Your task to perform on an android device: Do I have any events this weekend? Image 0: 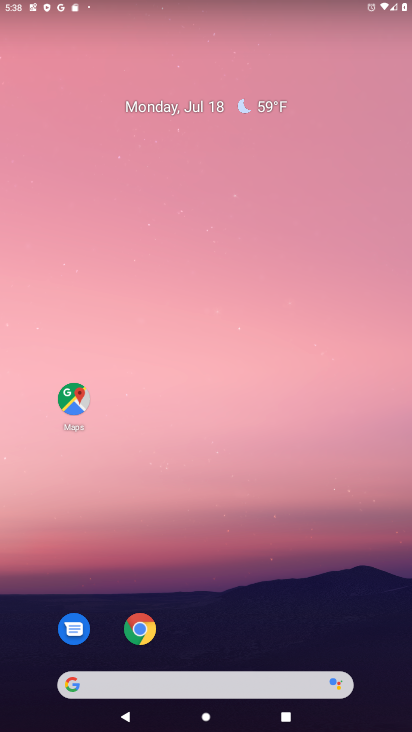
Step 0: drag from (262, 602) to (309, 91)
Your task to perform on an android device: Do I have any events this weekend? Image 1: 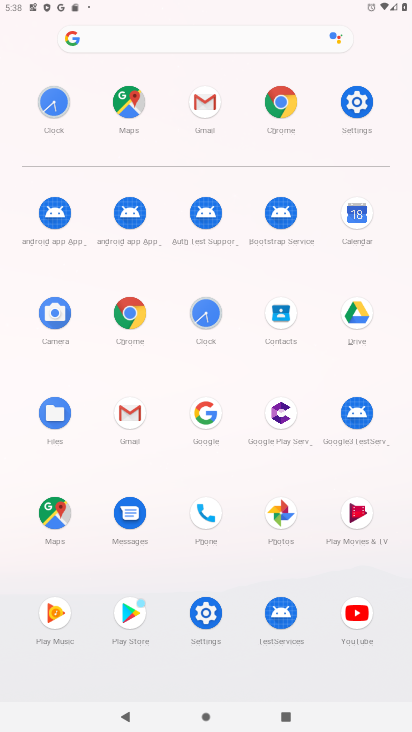
Step 1: click (353, 229)
Your task to perform on an android device: Do I have any events this weekend? Image 2: 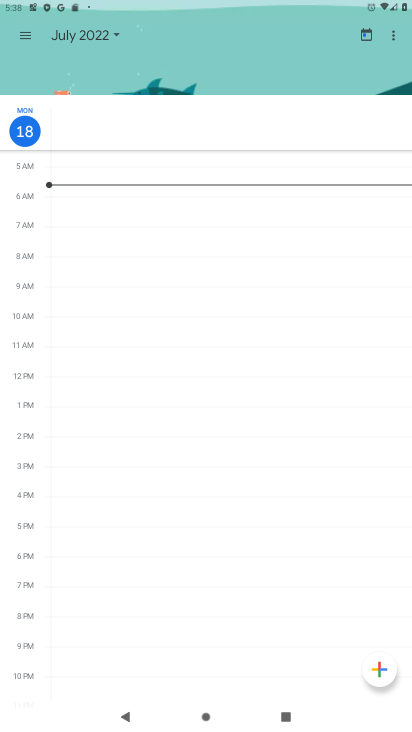
Step 2: click (94, 35)
Your task to perform on an android device: Do I have any events this weekend? Image 3: 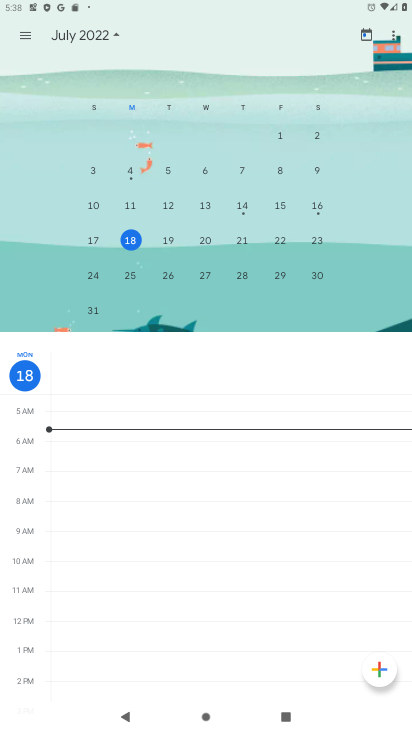
Step 3: click (322, 239)
Your task to perform on an android device: Do I have any events this weekend? Image 4: 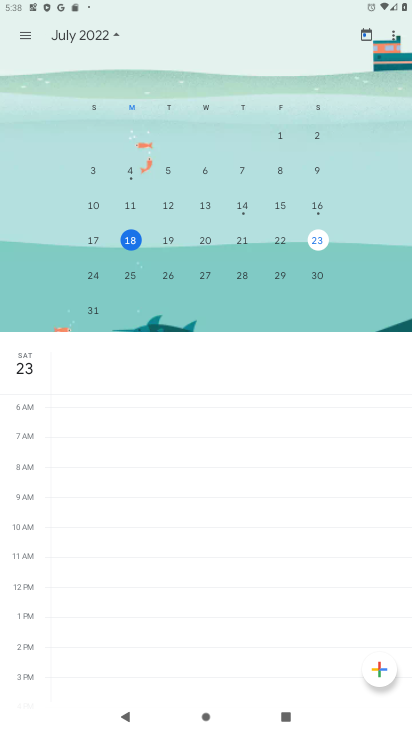
Step 4: click (29, 44)
Your task to perform on an android device: Do I have any events this weekend? Image 5: 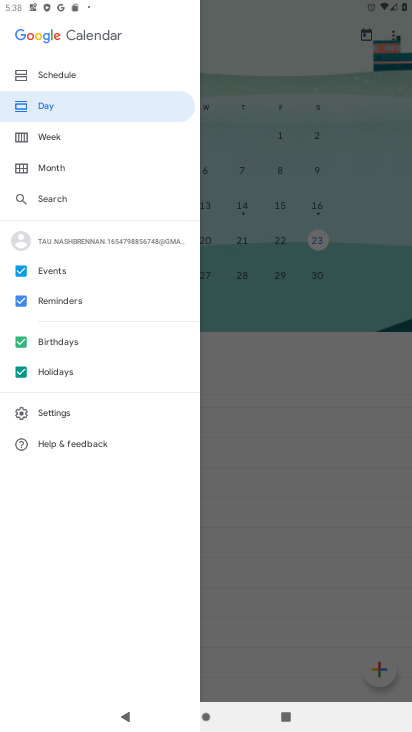
Step 5: click (245, 155)
Your task to perform on an android device: Do I have any events this weekend? Image 6: 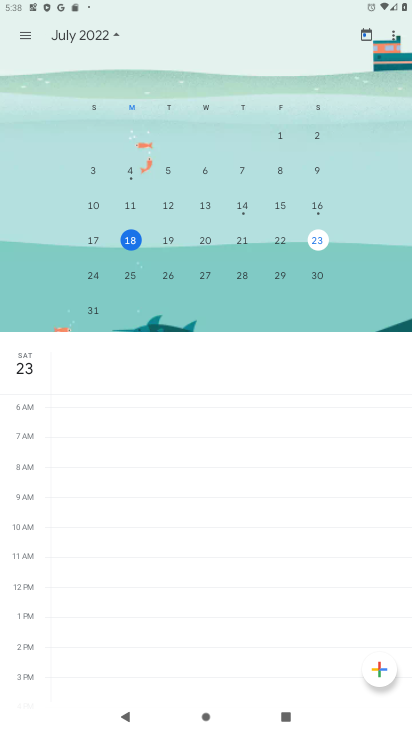
Step 6: click (312, 241)
Your task to perform on an android device: Do I have any events this weekend? Image 7: 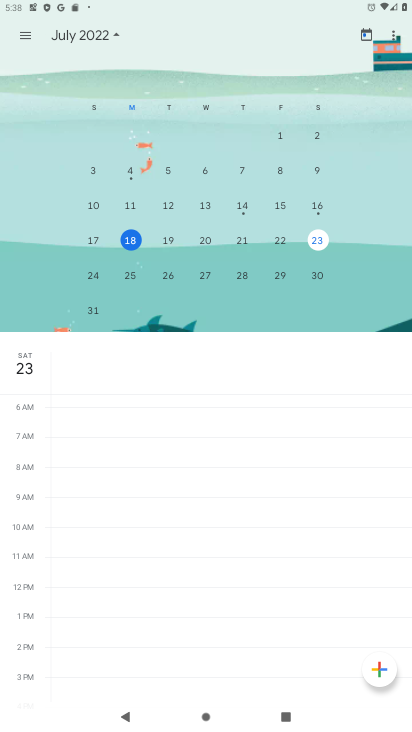
Step 7: click (322, 239)
Your task to perform on an android device: Do I have any events this weekend? Image 8: 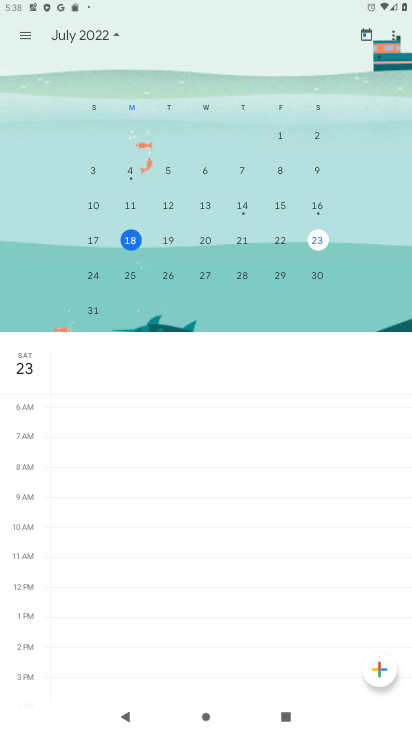
Step 8: task complete